Your task to perform on an android device: open app "Nova Launcher" Image 0: 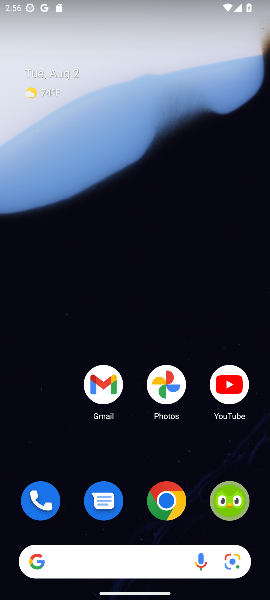
Step 0: drag from (159, 443) to (180, 5)
Your task to perform on an android device: open app "Nova Launcher" Image 1: 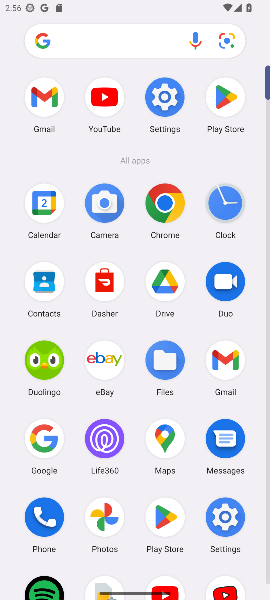
Step 1: click (221, 93)
Your task to perform on an android device: open app "Nova Launcher" Image 2: 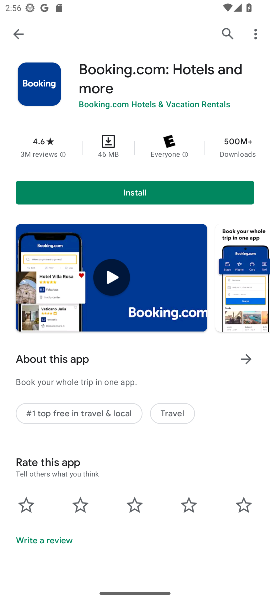
Step 2: click (224, 36)
Your task to perform on an android device: open app "Nova Launcher" Image 3: 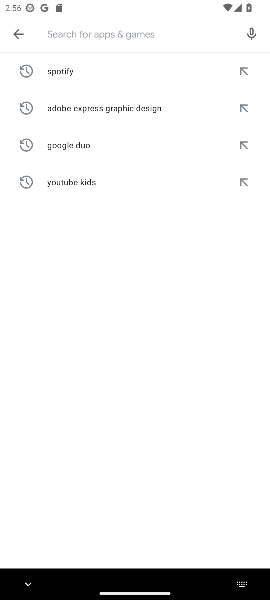
Step 3: type "Nova Launcher"
Your task to perform on an android device: open app "Nova Launcher" Image 4: 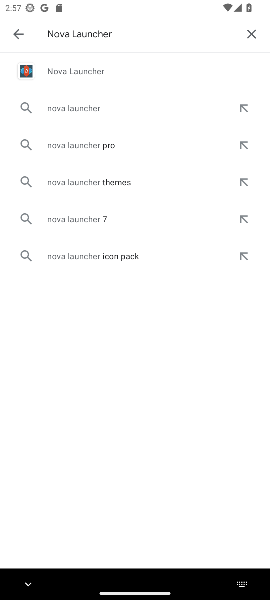
Step 4: click (81, 74)
Your task to perform on an android device: open app "Nova Launcher" Image 5: 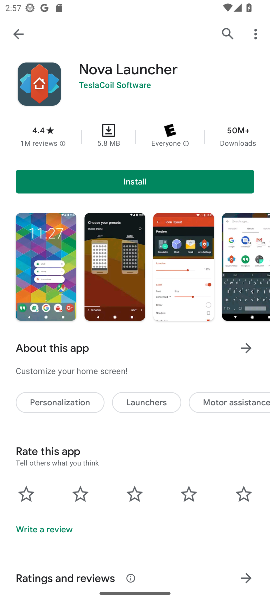
Step 5: task complete